Your task to perform on an android device: Check the news Image 0: 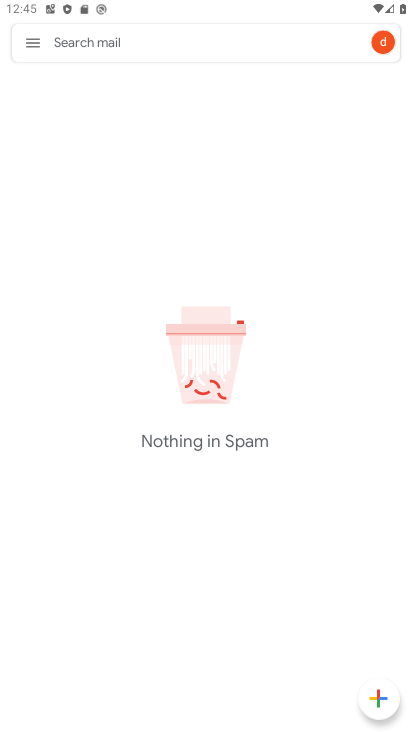
Step 0: press home button
Your task to perform on an android device: Check the news Image 1: 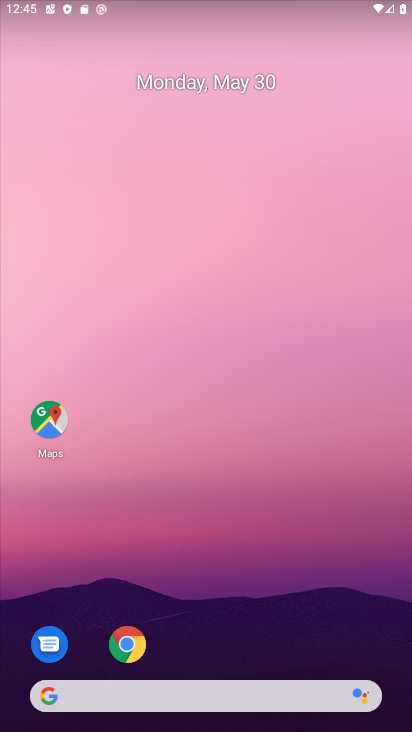
Step 1: drag from (334, 588) to (317, 165)
Your task to perform on an android device: Check the news Image 2: 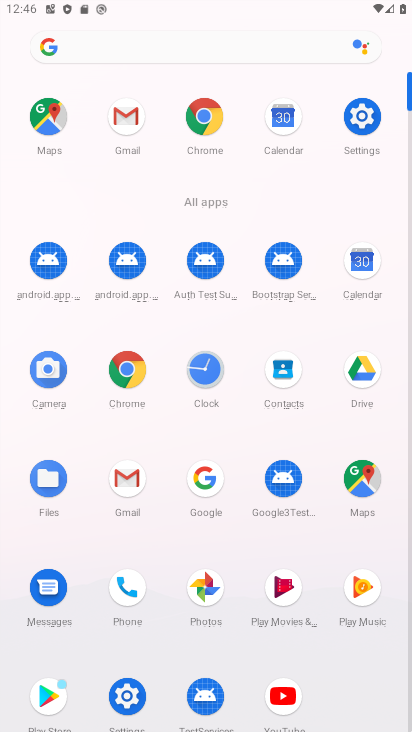
Step 2: click (120, 382)
Your task to perform on an android device: Check the news Image 3: 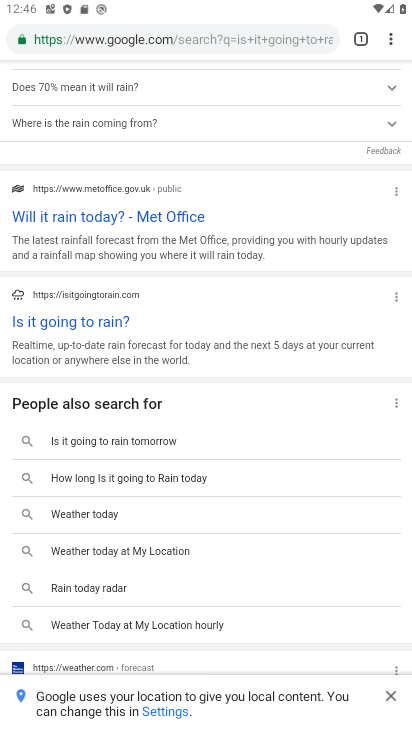
Step 3: click (217, 40)
Your task to perform on an android device: Check the news Image 4: 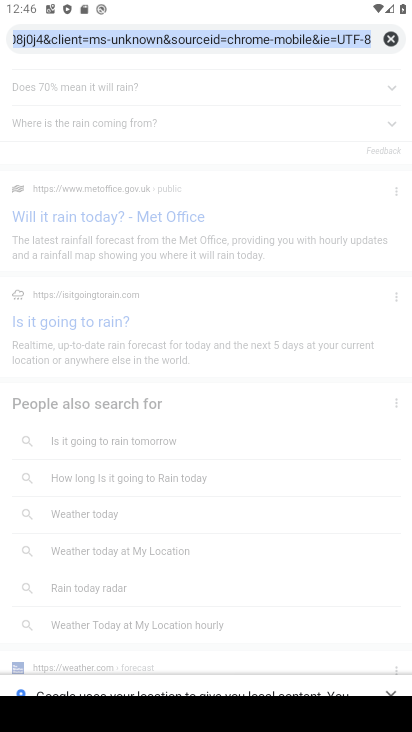
Step 4: click (389, 32)
Your task to perform on an android device: Check the news Image 5: 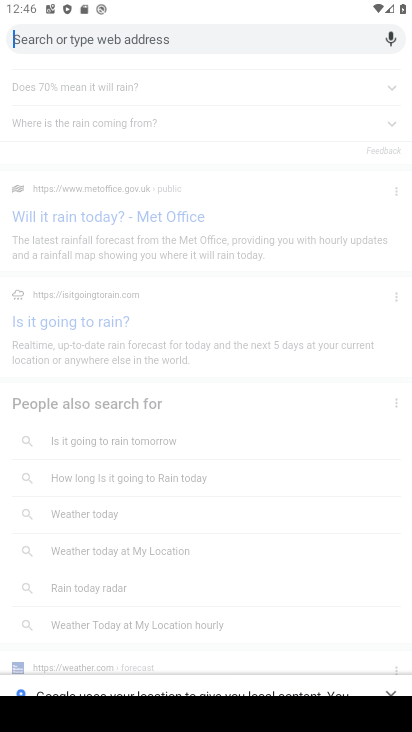
Step 5: type "check the news"
Your task to perform on an android device: Check the news Image 6: 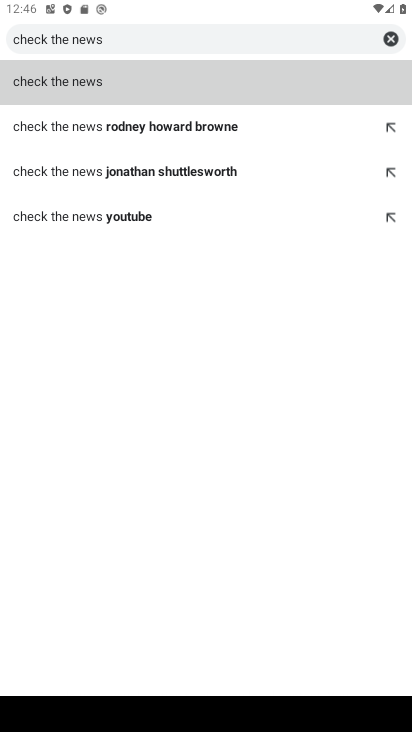
Step 6: click (147, 79)
Your task to perform on an android device: Check the news Image 7: 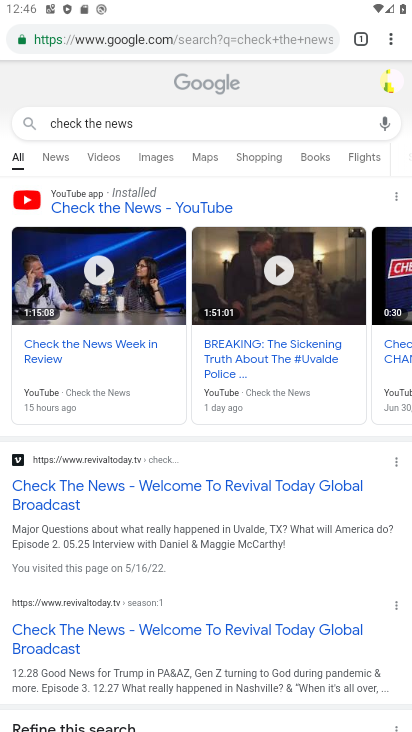
Step 7: task complete